Your task to perform on an android device: toggle show notifications on the lock screen Image 0: 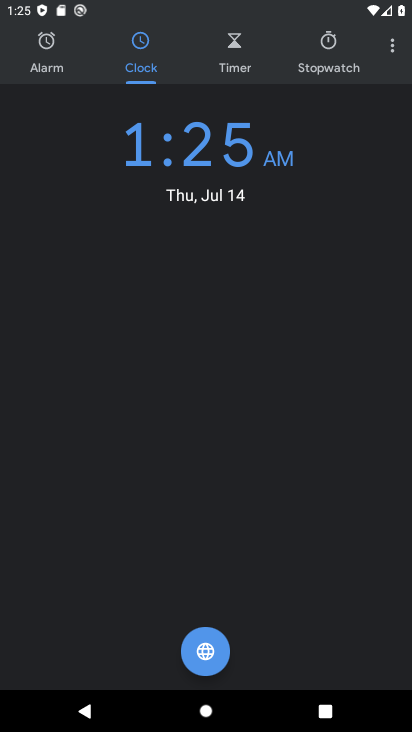
Step 0: press home button
Your task to perform on an android device: toggle show notifications on the lock screen Image 1: 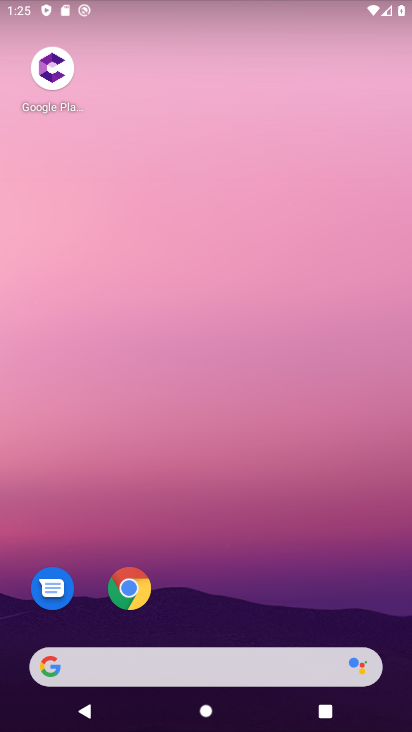
Step 1: drag from (273, 576) to (236, 10)
Your task to perform on an android device: toggle show notifications on the lock screen Image 2: 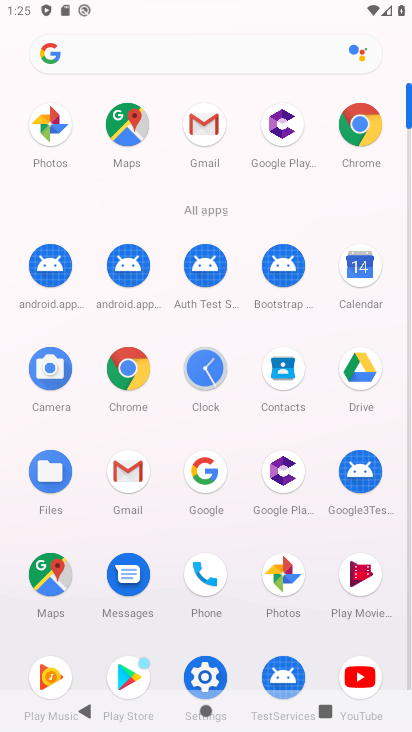
Step 2: click (193, 676)
Your task to perform on an android device: toggle show notifications on the lock screen Image 3: 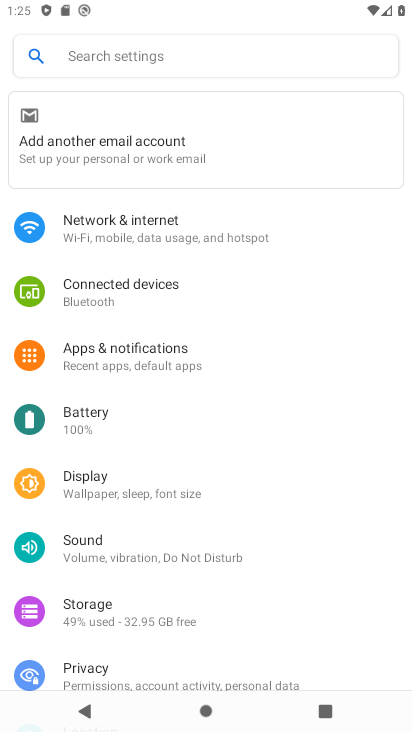
Step 3: click (150, 347)
Your task to perform on an android device: toggle show notifications on the lock screen Image 4: 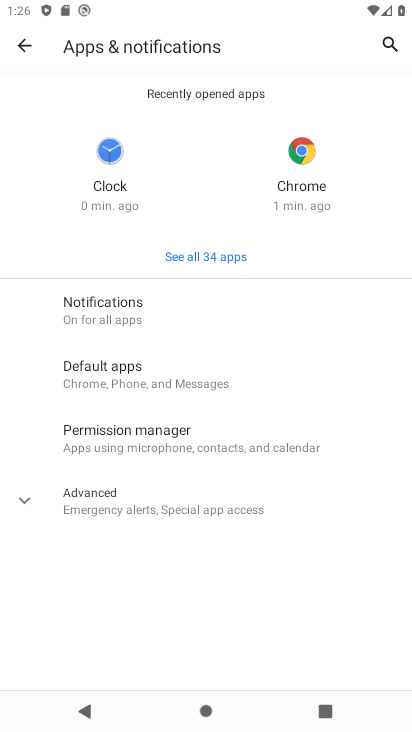
Step 4: click (121, 315)
Your task to perform on an android device: toggle show notifications on the lock screen Image 5: 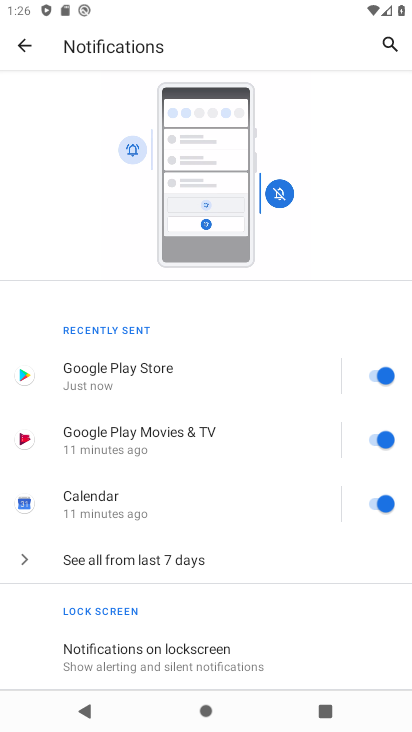
Step 5: drag from (148, 638) to (121, 319)
Your task to perform on an android device: toggle show notifications on the lock screen Image 6: 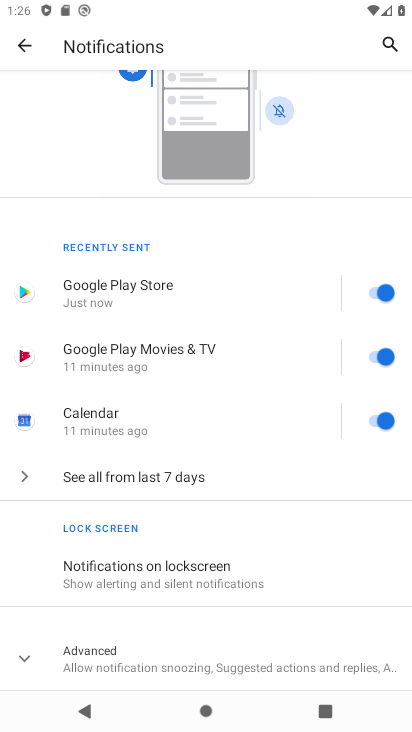
Step 6: click (149, 572)
Your task to perform on an android device: toggle show notifications on the lock screen Image 7: 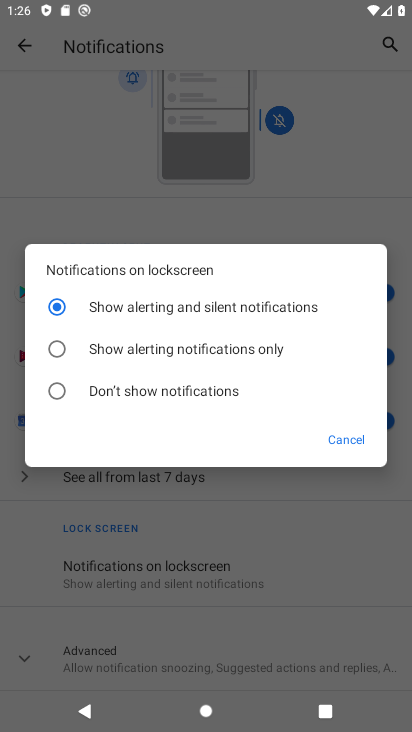
Step 7: click (58, 348)
Your task to perform on an android device: toggle show notifications on the lock screen Image 8: 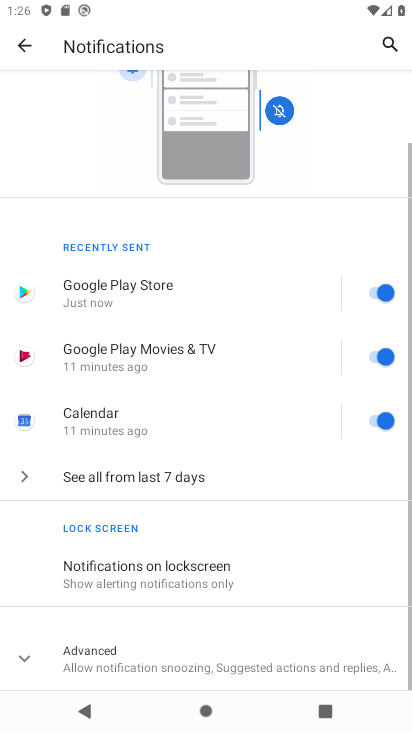
Step 8: task complete